Your task to perform on an android device: check battery use Image 0: 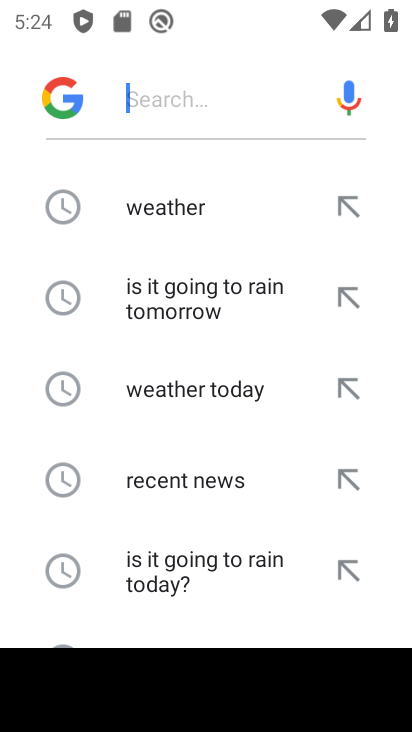
Step 0: press home button
Your task to perform on an android device: check battery use Image 1: 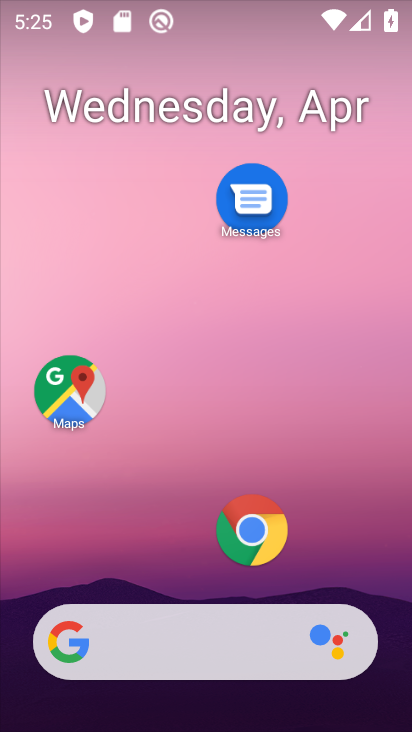
Step 1: drag from (146, 561) to (233, 88)
Your task to perform on an android device: check battery use Image 2: 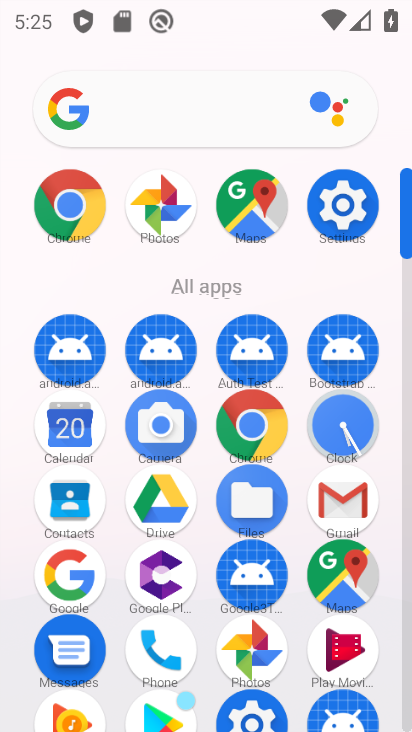
Step 2: click (343, 208)
Your task to perform on an android device: check battery use Image 3: 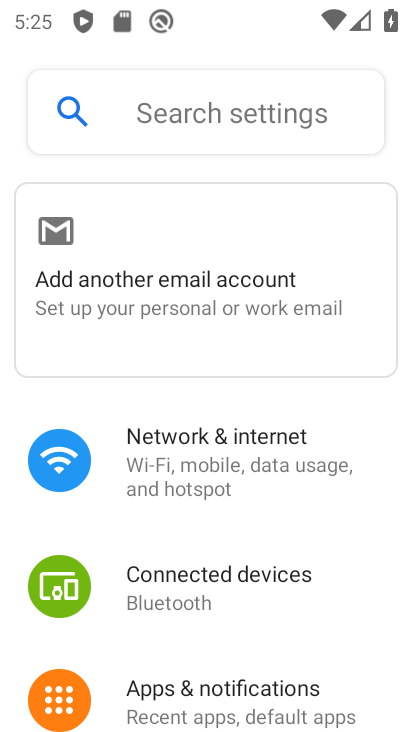
Step 3: drag from (209, 637) to (274, 467)
Your task to perform on an android device: check battery use Image 4: 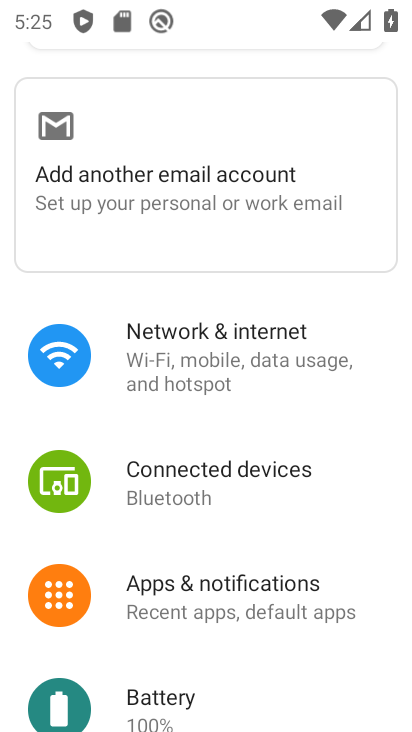
Step 4: drag from (219, 665) to (268, 483)
Your task to perform on an android device: check battery use Image 5: 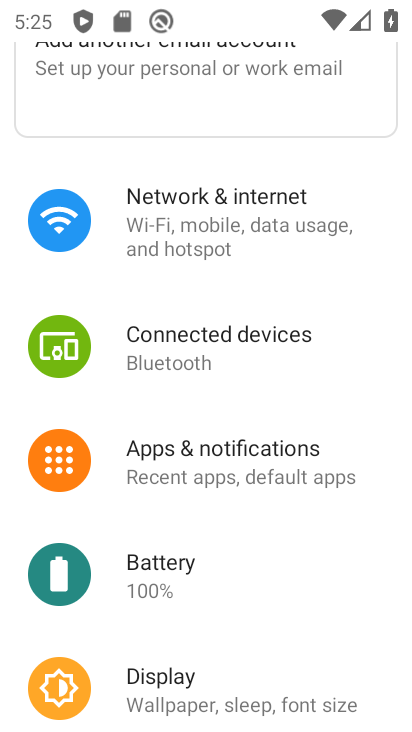
Step 5: drag from (197, 586) to (230, 475)
Your task to perform on an android device: check battery use Image 6: 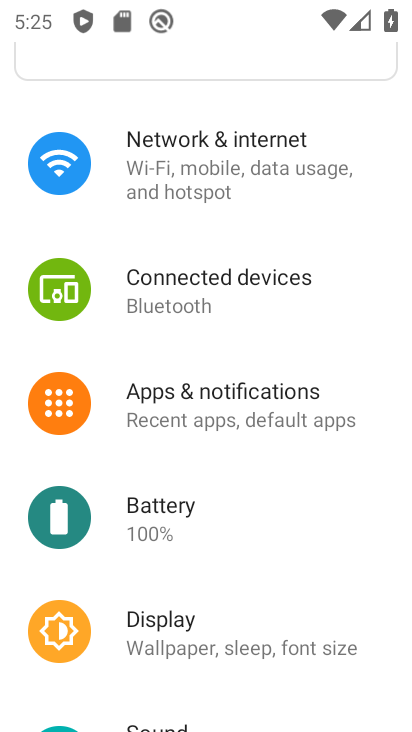
Step 6: click (179, 506)
Your task to perform on an android device: check battery use Image 7: 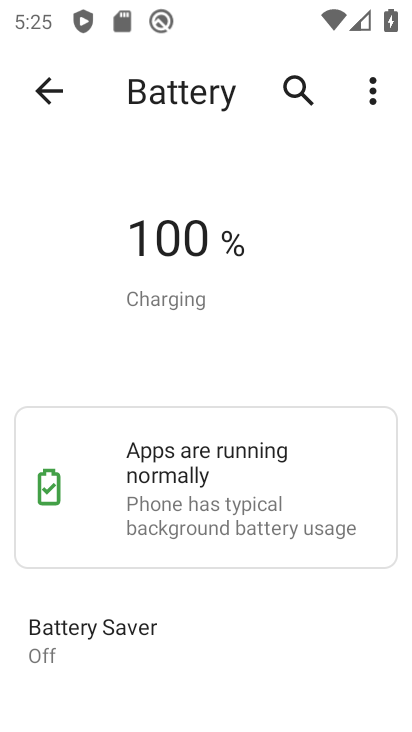
Step 7: task complete